Your task to perform on an android device: turn on data saver in the chrome app Image 0: 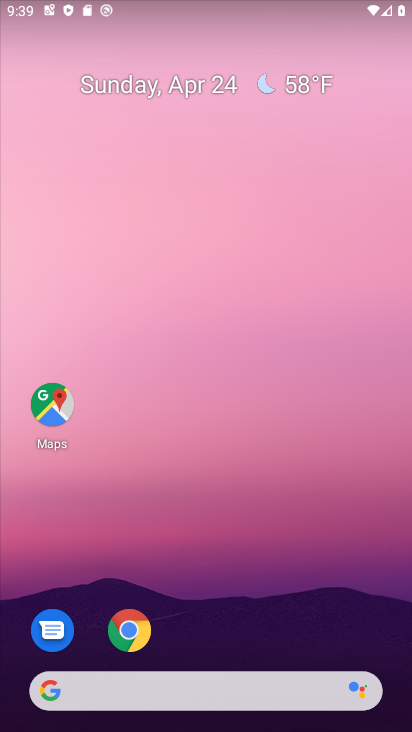
Step 0: drag from (234, 595) to (319, 54)
Your task to perform on an android device: turn on data saver in the chrome app Image 1: 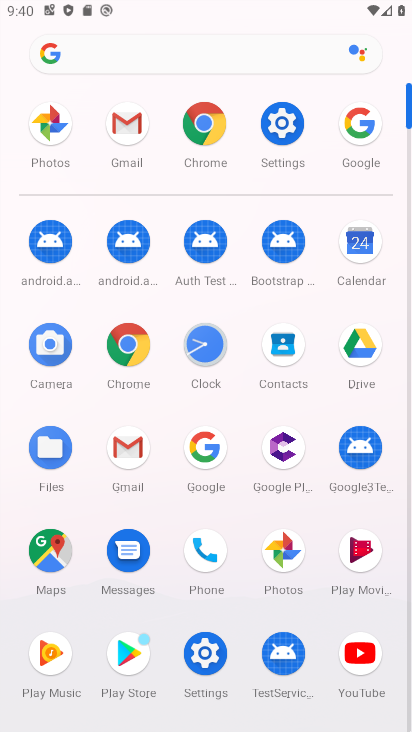
Step 1: click (205, 153)
Your task to perform on an android device: turn on data saver in the chrome app Image 2: 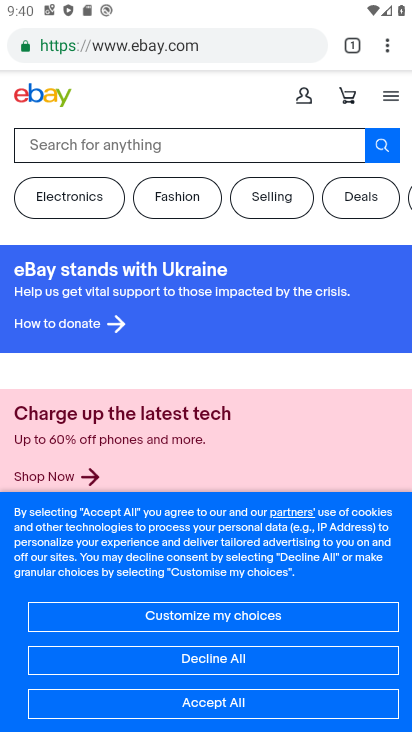
Step 2: click (383, 52)
Your task to perform on an android device: turn on data saver in the chrome app Image 3: 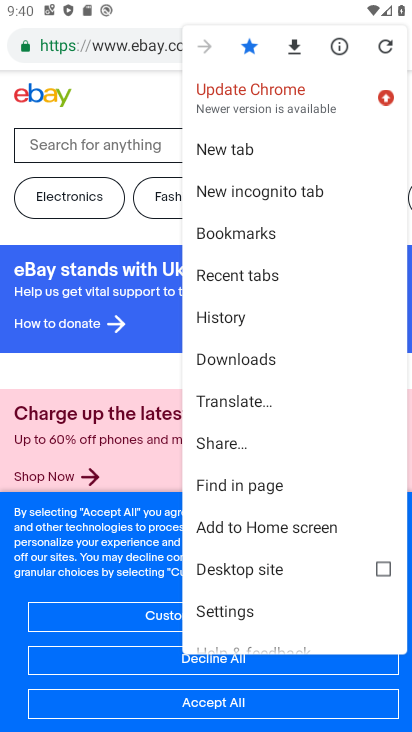
Step 3: drag from (261, 571) to (231, 240)
Your task to perform on an android device: turn on data saver in the chrome app Image 4: 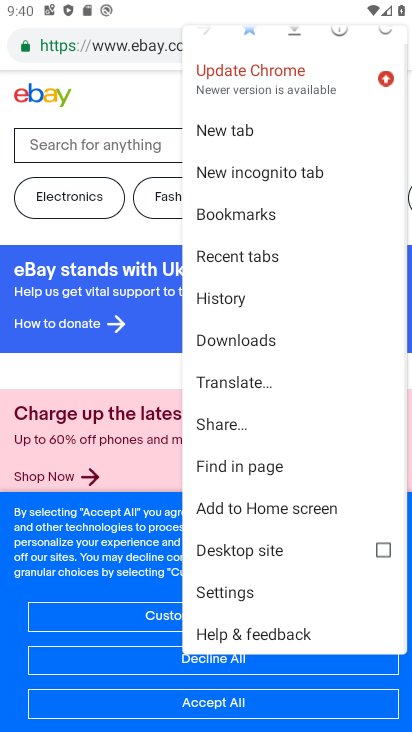
Step 4: drag from (314, 487) to (305, 239)
Your task to perform on an android device: turn on data saver in the chrome app Image 5: 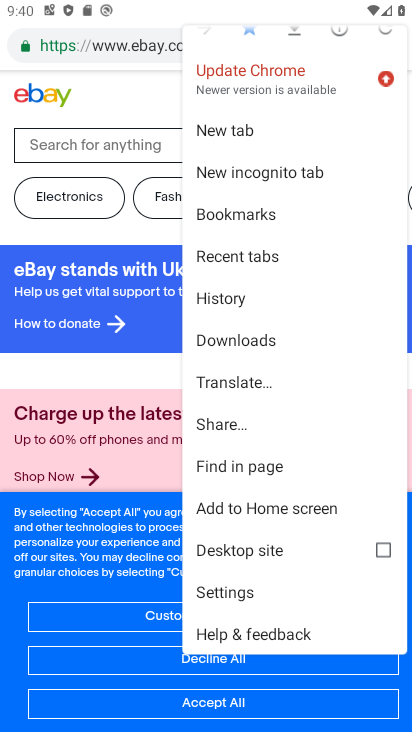
Step 5: click (234, 600)
Your task to perform on an android device: turn on data saver in the chrome app Image 6: 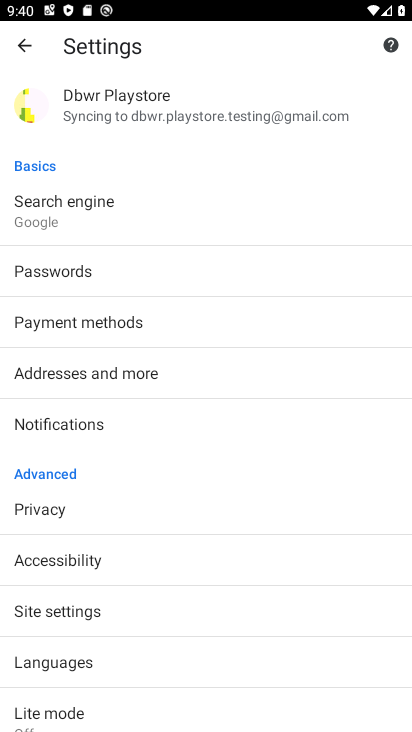
Step 6: click (234, 600)
Your task to perform on an android device: turn on data saver in the chrome app Image 7: 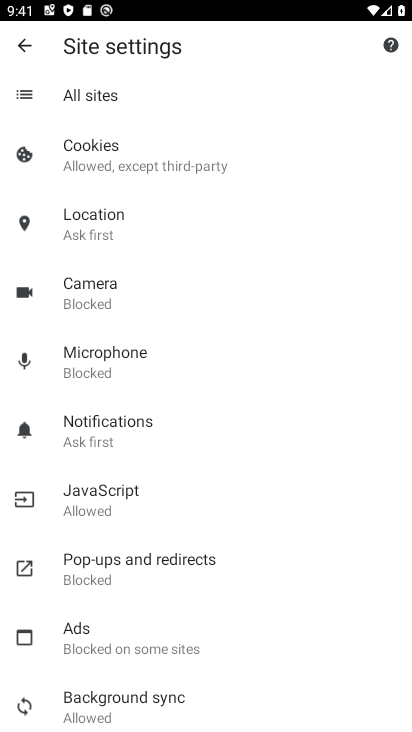
Step 7: click (29, 52)
Your task to perform on an android device: turn on data saver in the chrome app Image 8: 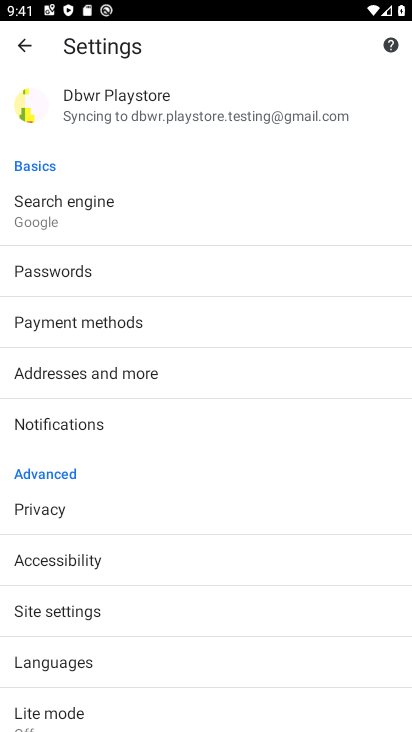
Step 8: click (217, 703)
Your task to perform on an android device: turn on data saver in the chrome app Image 9: 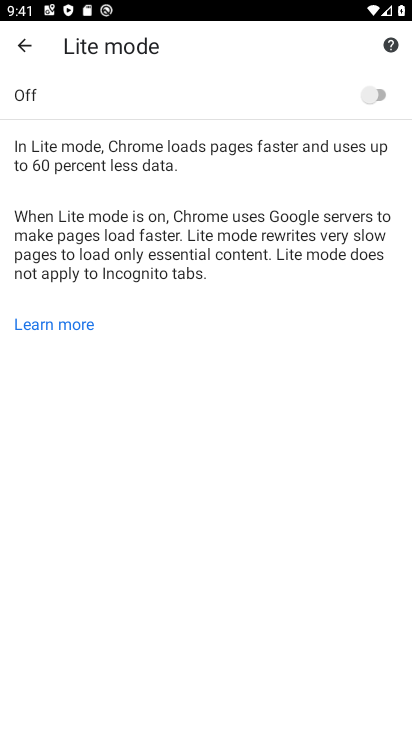
Step 9: click (383, 84)
Your task to perform on an android device: turn on data saver in the chrome app Image 10: 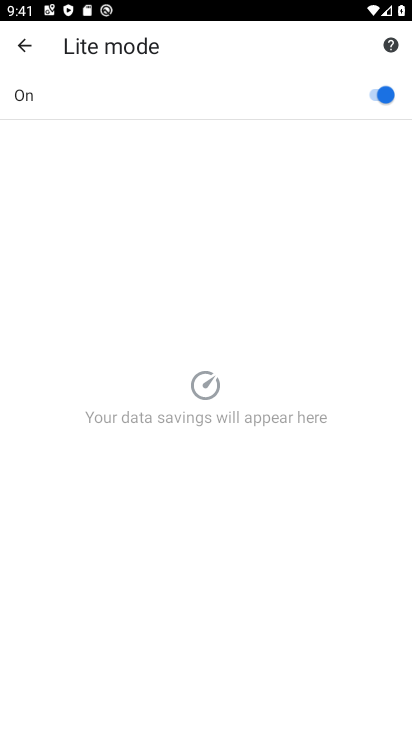
Step 10: task complete